Your task to perform on an android device: Toggle the flashlight Image 0: 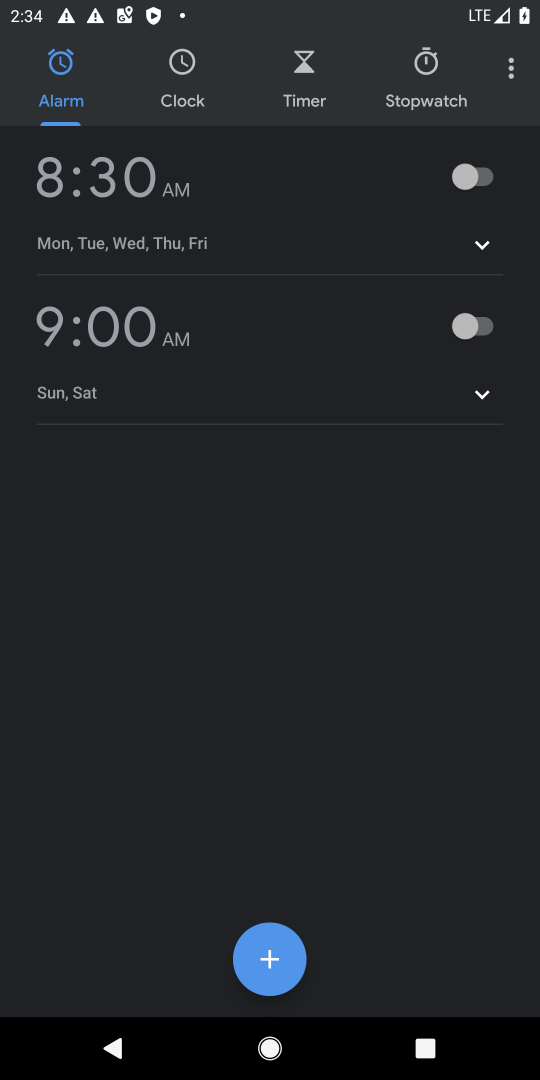
Step 0: press home button
Your task to perform on an android device: Toggle the flashlight Image 1: 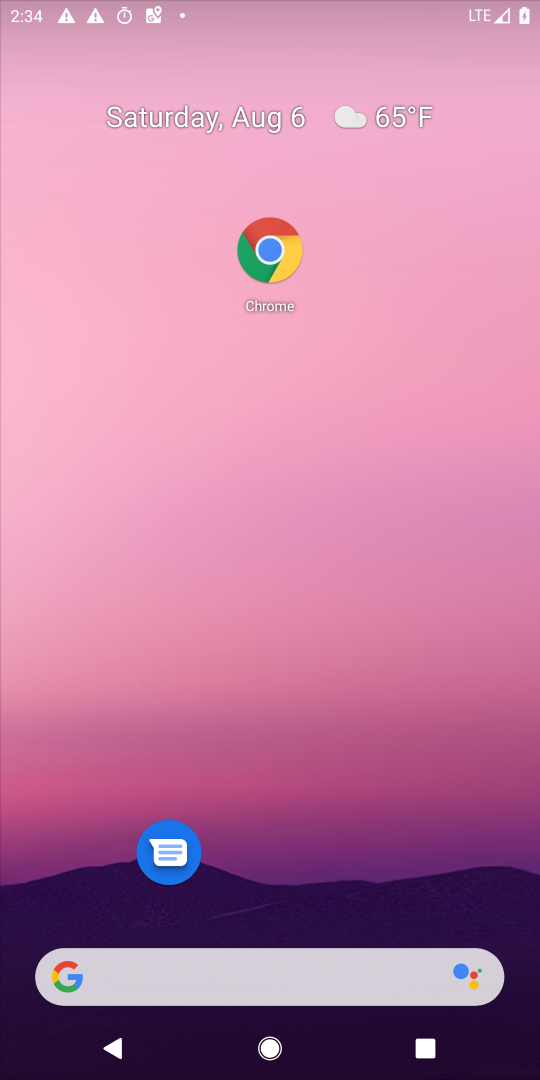
Step 1: drag from (415, 674) to (419, 227)
Your task to perform on an android device: Toggle the flashlight Image 2: 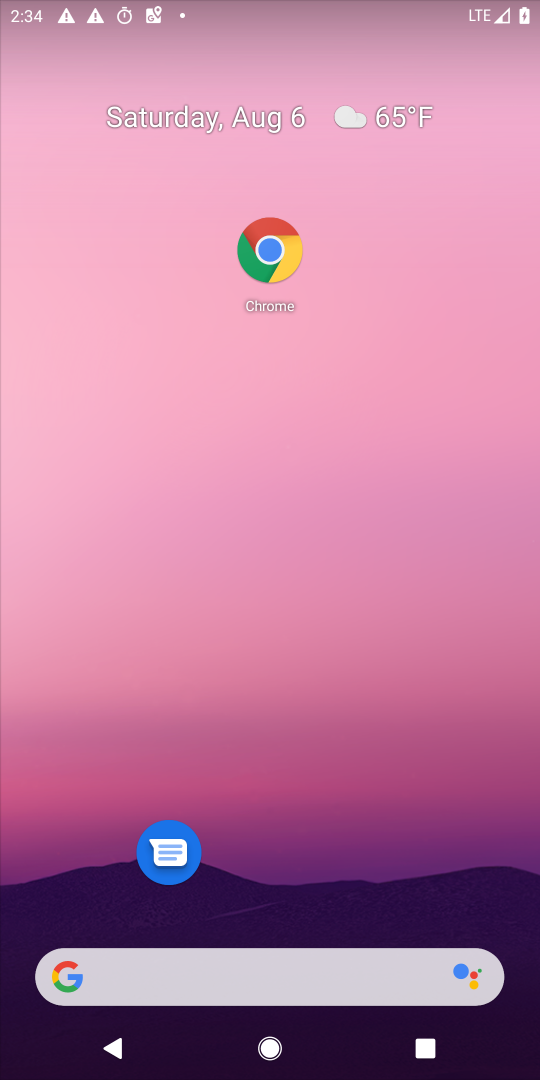
Step 2: drag from (306, 914) to (358, 251)
Your task to perform on an android device: Toggle the flashlight Image 3: 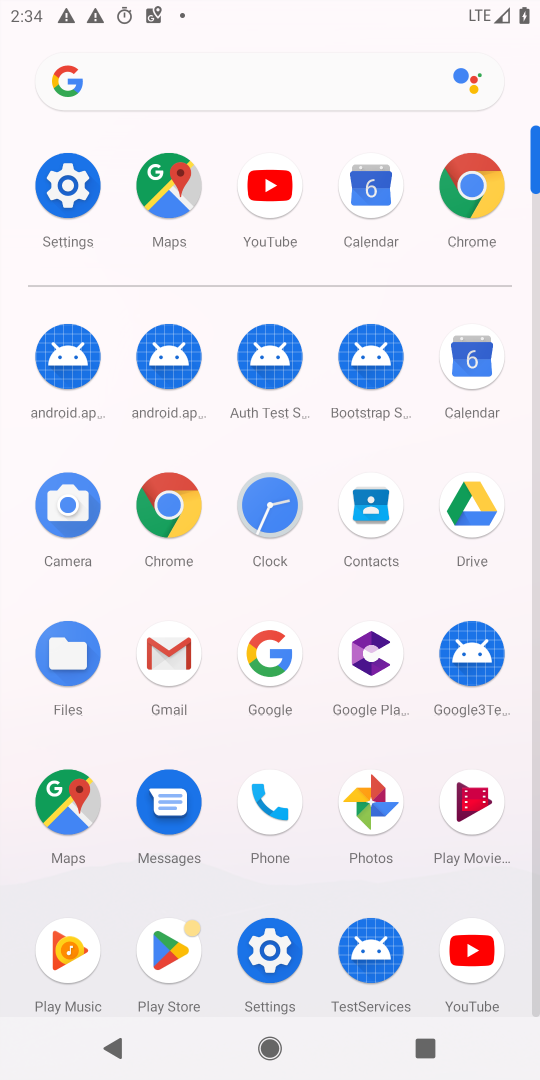
Step 3: click (76, 187)
Your task to perform on an android device: Toggle the flashlight Image 4: 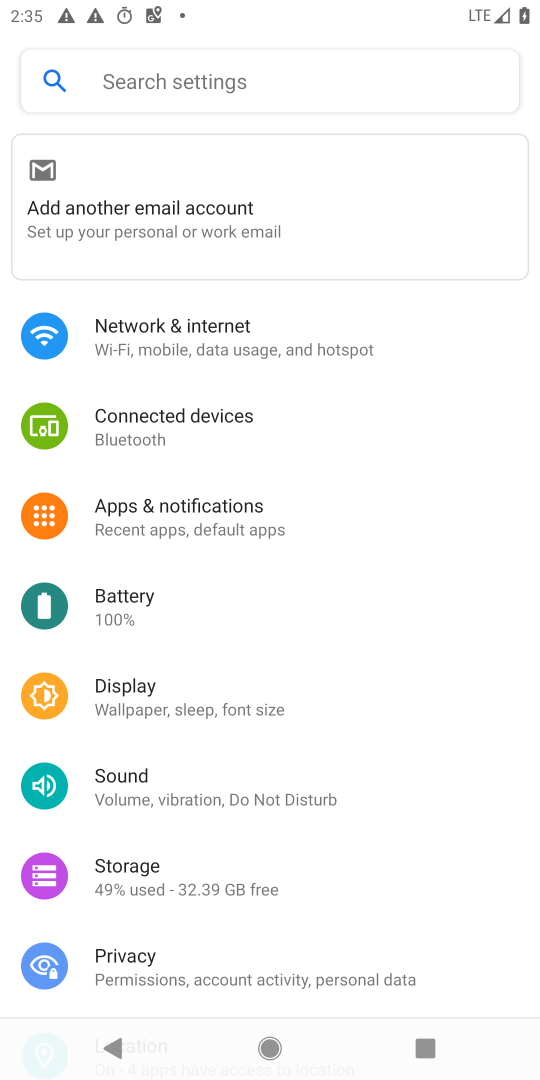
Step 4: click (138, 67)
Your task to perform on an android device: Toggle the flashlight Image 5: 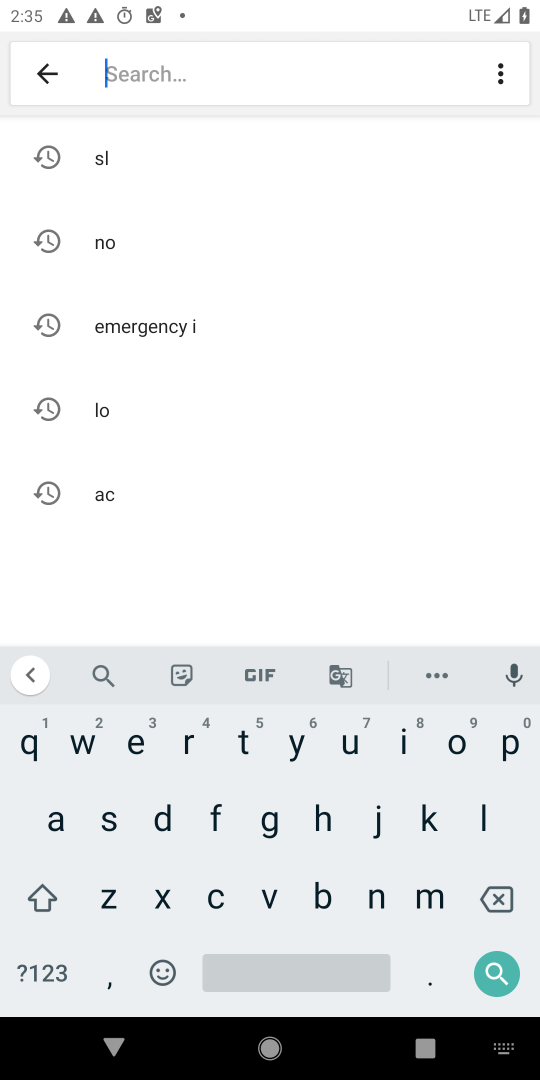
Step 5: click (209, 808)
Your task to perform on an android device: Toggle the flashlight Image 6: 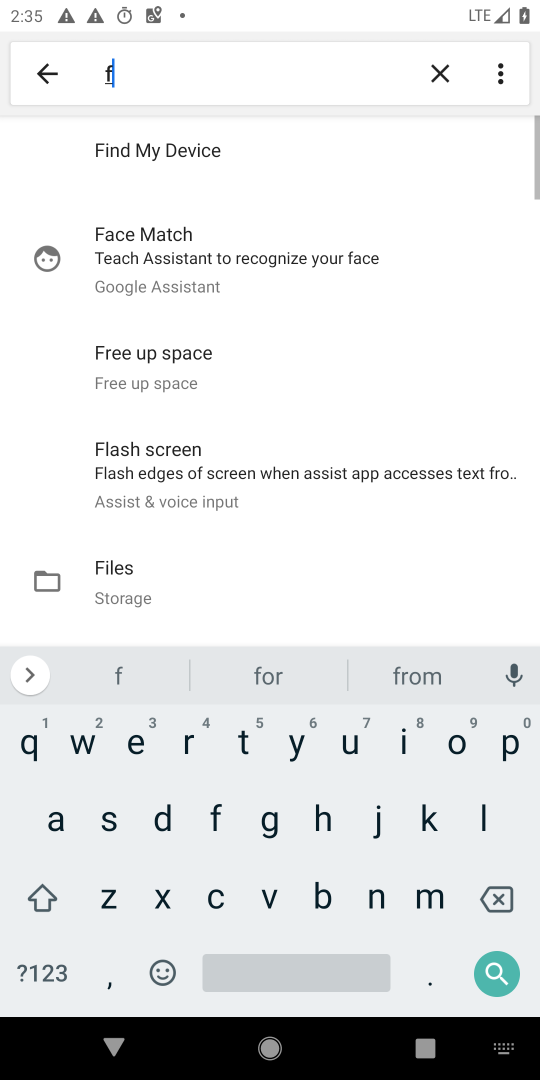
Step 6: click (482, 814)
Your task to perform on an android device: Toggle the flashlight Image 7: 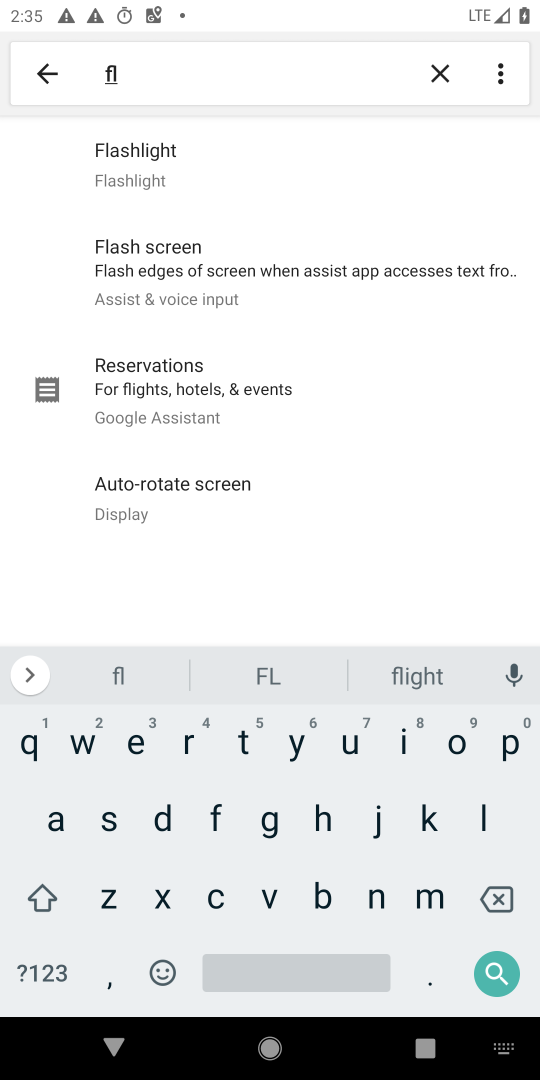
Step 7: click (199, 172)
Your task to perform on an android device: Toggle the flashlight Image 8: 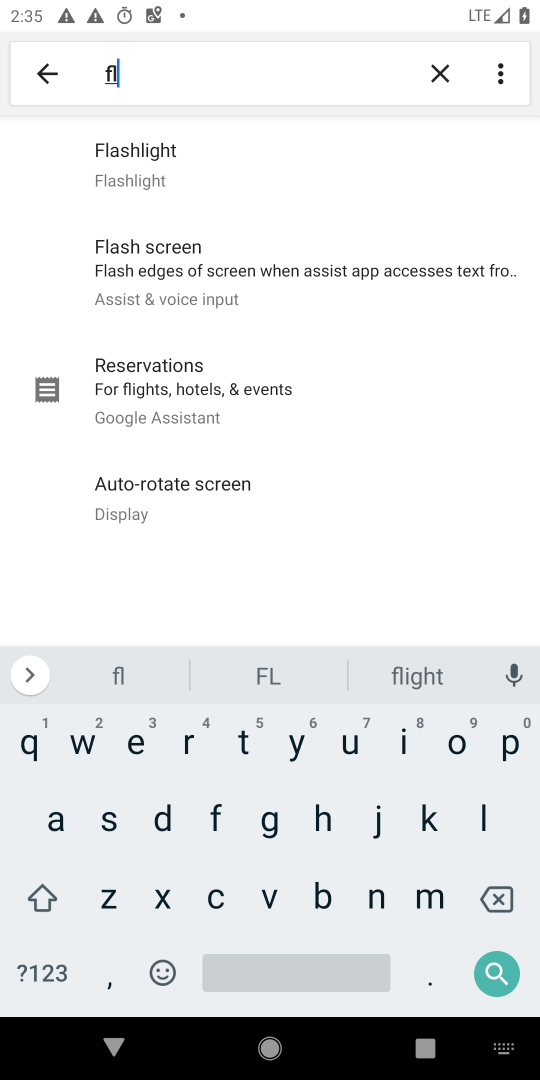
Step 8: task complete